Your task to perform on an android device: choose inbox layout in the gmail app Image 0: 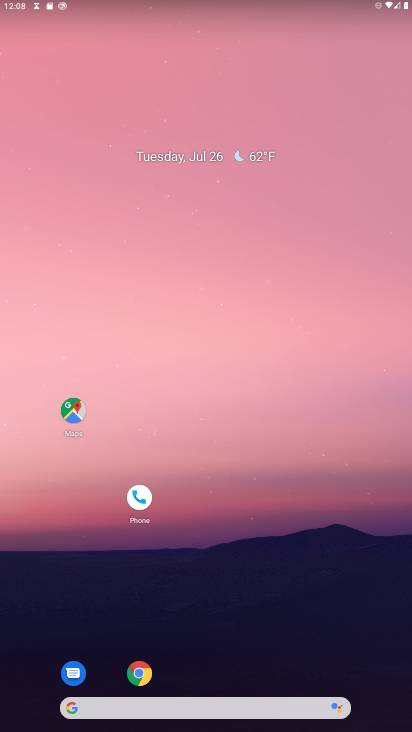
Step 0: press home button
Your task to perform on an android device: choose inbox layout in the gmail app Image 1: 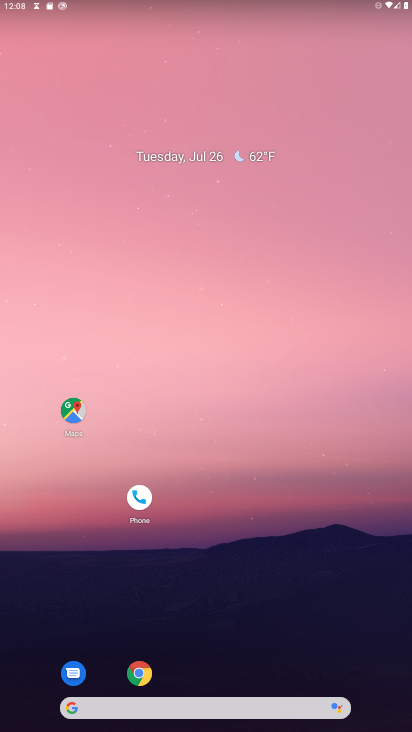
Step 1: drag from (228, 670) to (218, 21)
Your task to perform on an android device: choose inbox layout in the gmail app Image 2: 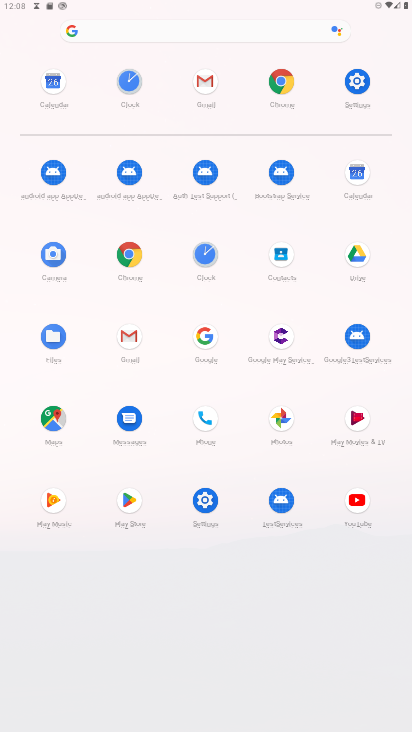
Step 2: click (201, 85)
Your task to perform on an android device: choose inbox layout in the gmail app Image 3: 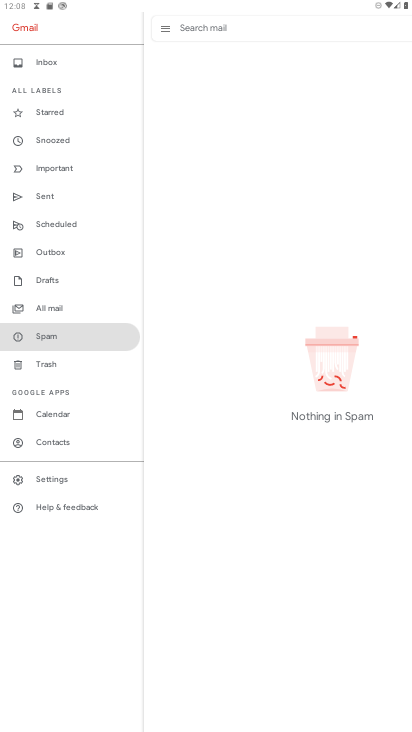
Step 3: click (51, 477)
Your task to perform on an android device: choose inbox layout in the gmail app Image 4: 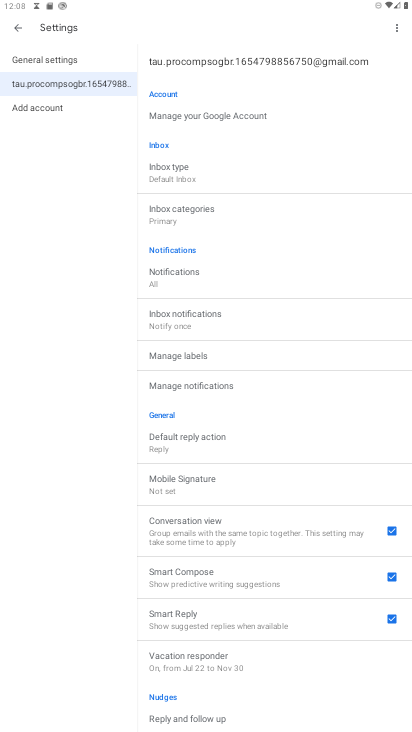
Step 4: click (159, 169)
Your task to perform on an android device: choose inbox layout in the gmail app Image 5: 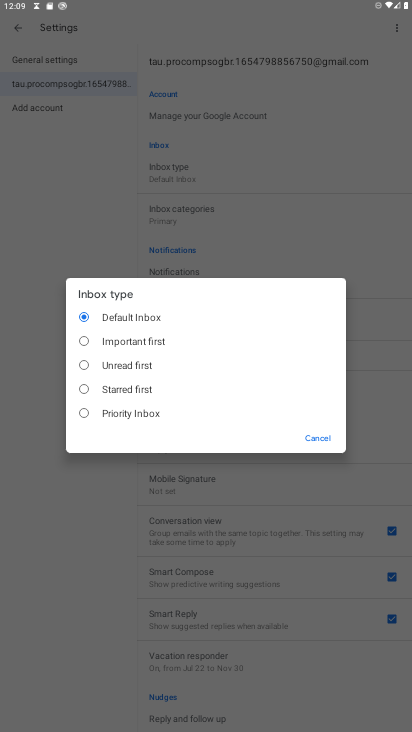
Step 5: click (78, 347)
Your task to perform on an android device: choose inbox layout in the gmail app Image 6: 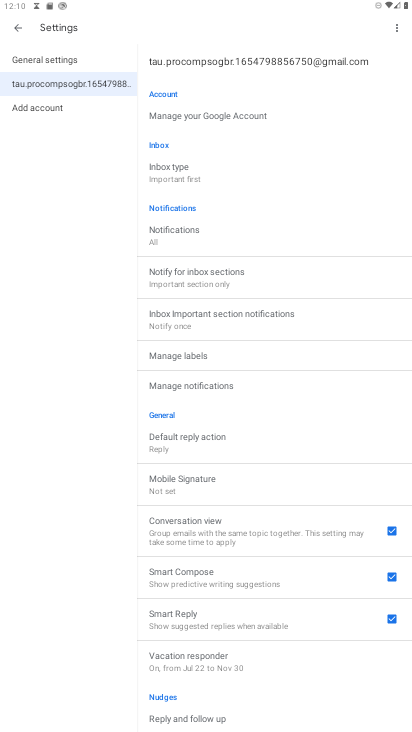
Step 6: task complete